Your task to perform on an android device: Open settings on Google Maps Image 0: 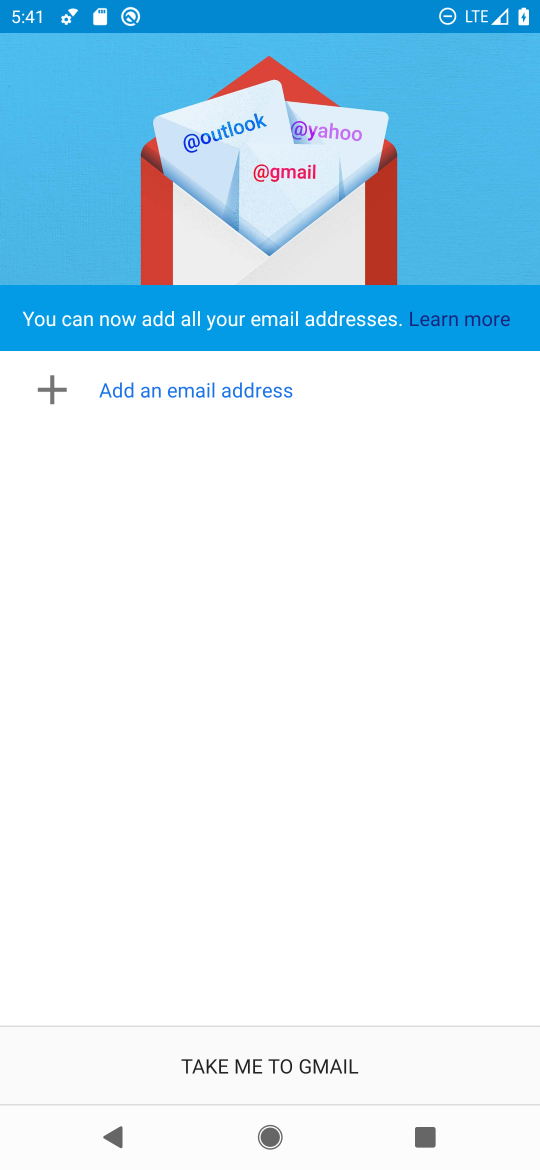
Step 0: press home button
Your task to perform on an android device: Open settings on Google Maps Image 1: 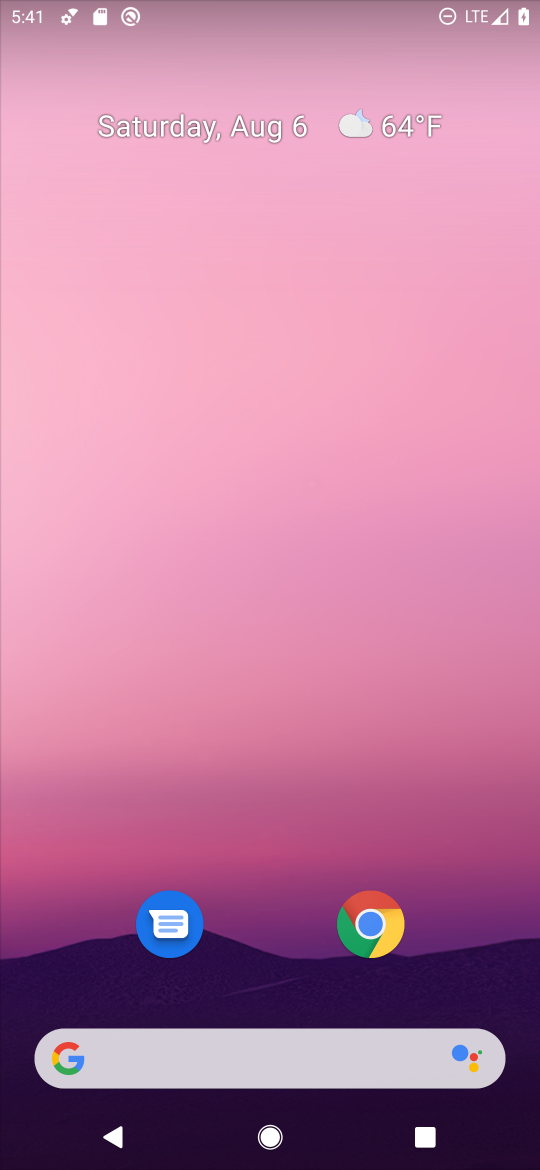
Step 1: drag from (262, 868) to (233, 107)
Your task to perform on an android device: Open settings on Google Maps Image 2: 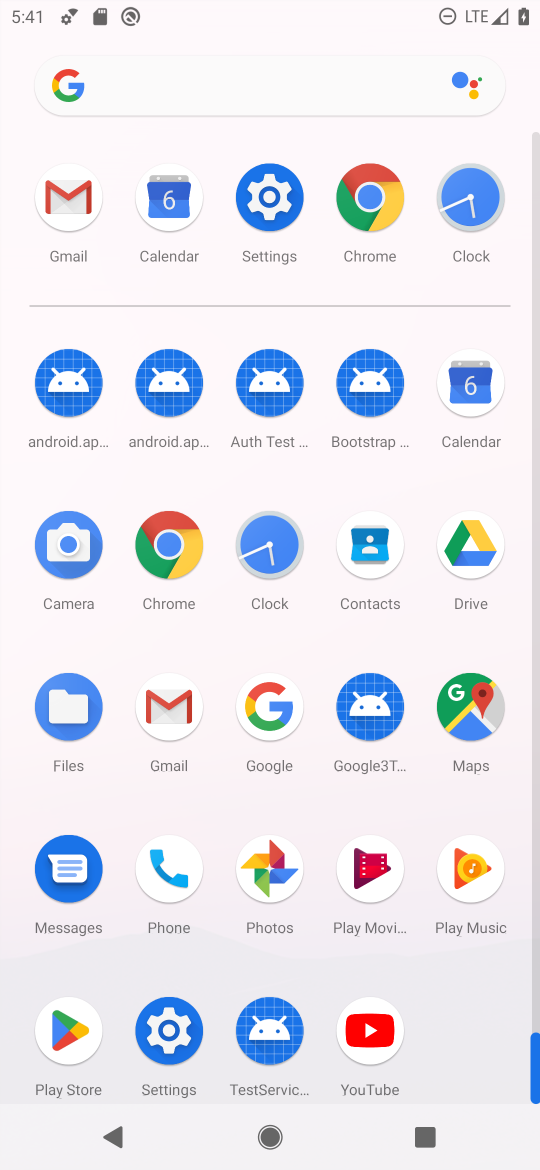
Step 2: click (460, 701)
Your task to perform on an android device: Open settings on Google Maps Image 3: 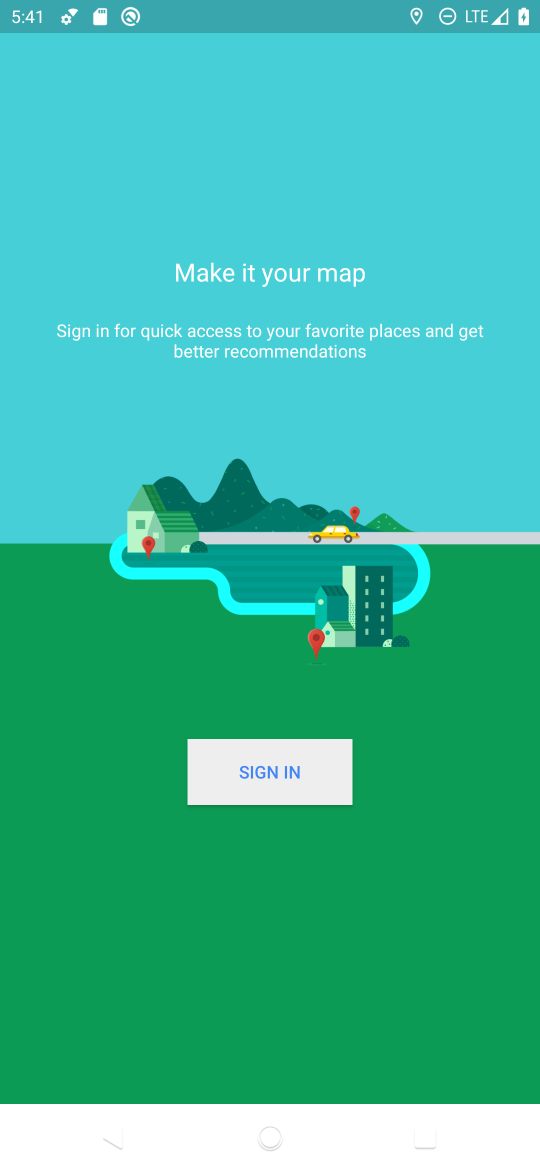
Step 3: click (284, 750)
Your task to perform on an android device: Open settings on Google Maps Image 4: 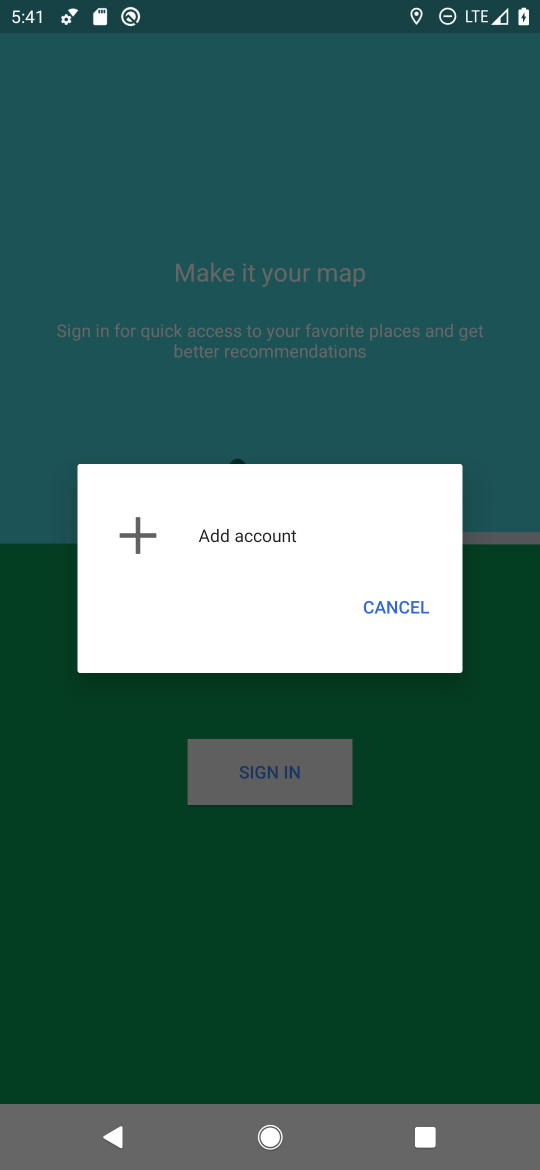
Step 4: click (373, 596)
Your task to perform on an android device: Open settings on Google Maps Image 5: 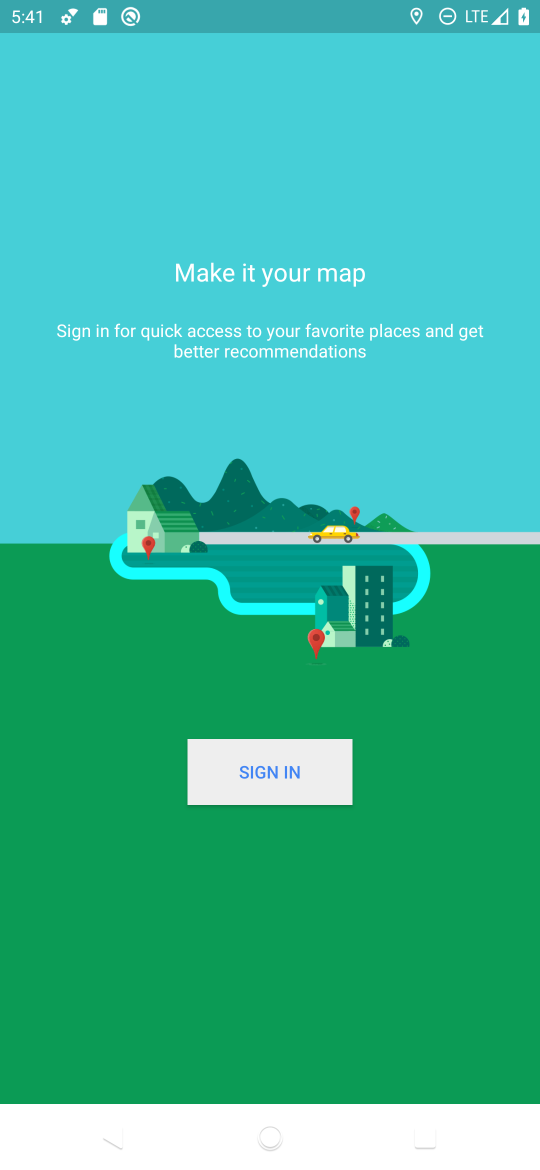
Step 5: task complete